Your task to perform on an android device: refresh tabs in the chrome app Image 0: 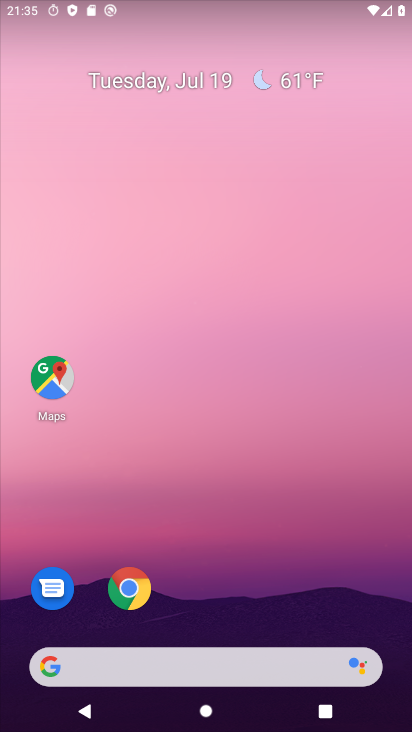
Step 0: press home button
Your task to perform on an android device: refresh tabs in the chrome app Image 1: 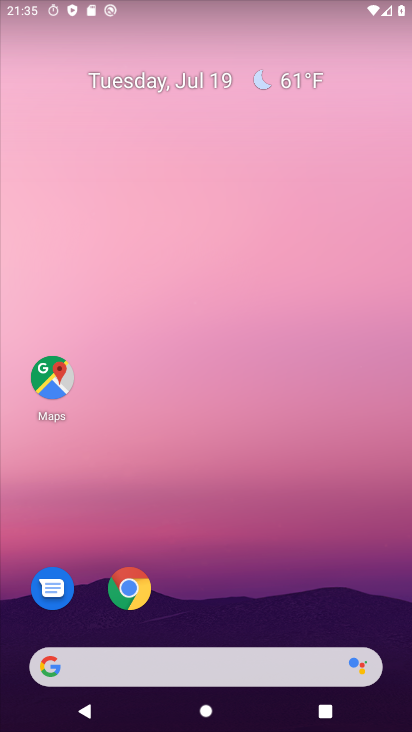
Step 1: click (128, 582)
Your task to perform on an android device: refresh tabs in the chrome app Image 2: 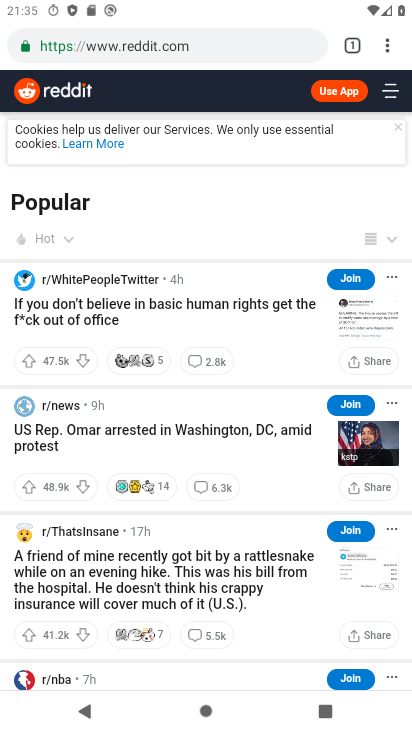
Step 2: click (389, 48)
Your task to perform on an android device: refresh tabs in the chrome app Image 3: 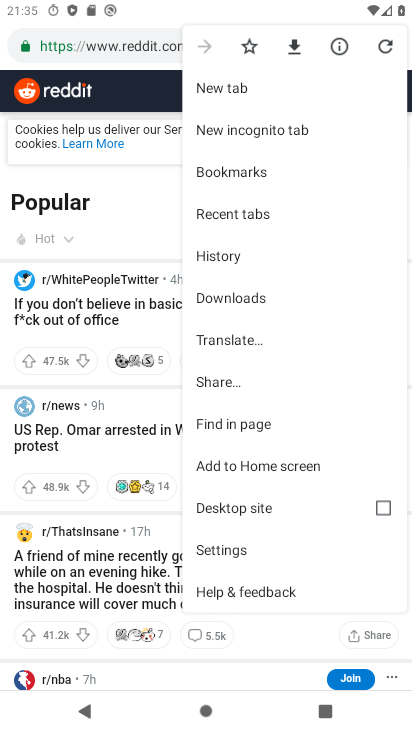
Step 3: click (383, 44)
Your task to perform on an android device: refresh tabs in the chrome app Image 4: 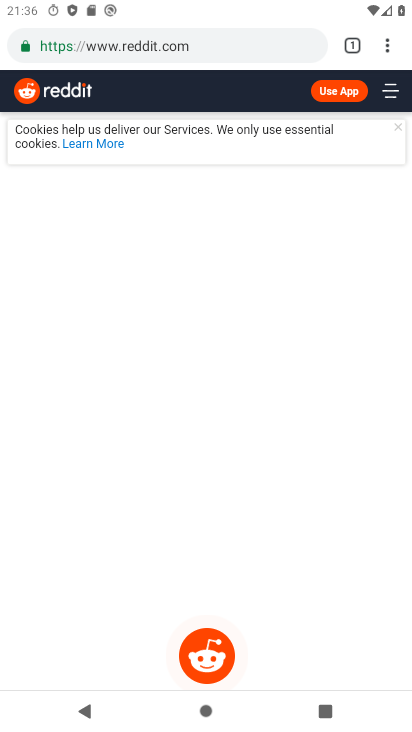
Step 4: task complete